Your task to perform on an android device: manage bookmarks in the chrome app Image 0: 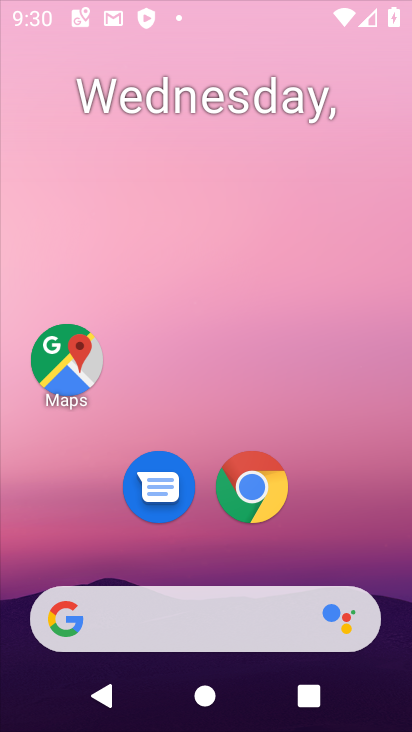
Step 0: drag from (79, 535) to (200, 12)
Your task to perform on an android device: manage bookmarks in the chrome app Image 1: 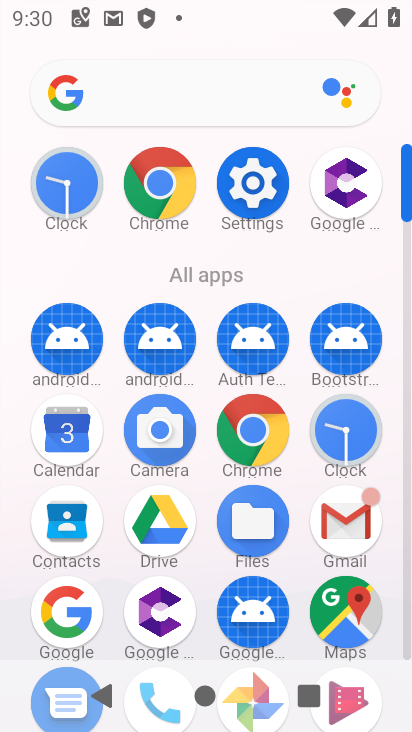
Step 1: click (163, 171)
Your task to perform on an android device: manage bookmarks in the chrome app Image 2: 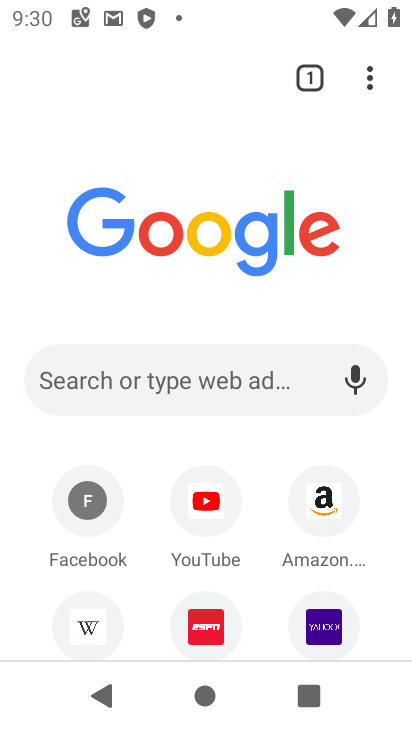
Step 2: drag from (377, 66) to (126, 298)
Your task to perform on an android device: manage bookmarks in the chrome app Image 3: 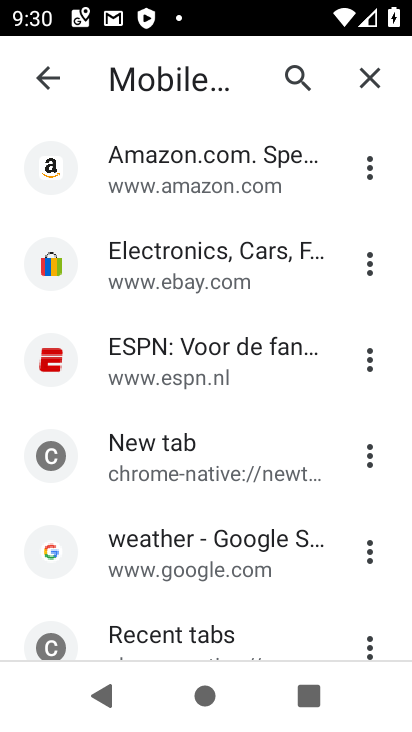
Step 3: click (368, 261)
Your task to perform on an android device: manage bookmarks in the chrome app Image 4: 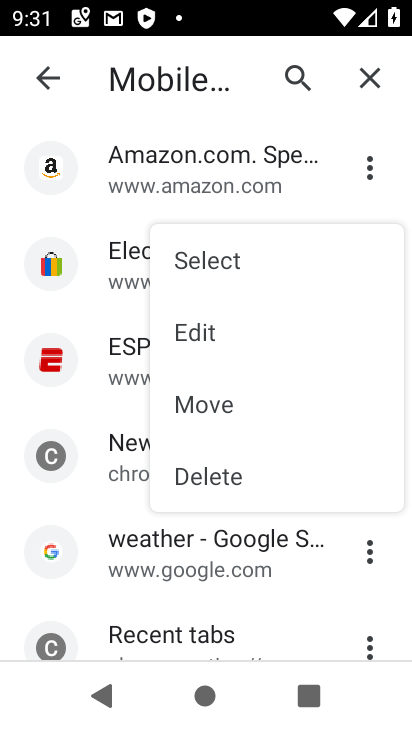
Step 4: click (222, 486)
Your task to perform on an android device: manage bookmarks in the chrome app Image 5: 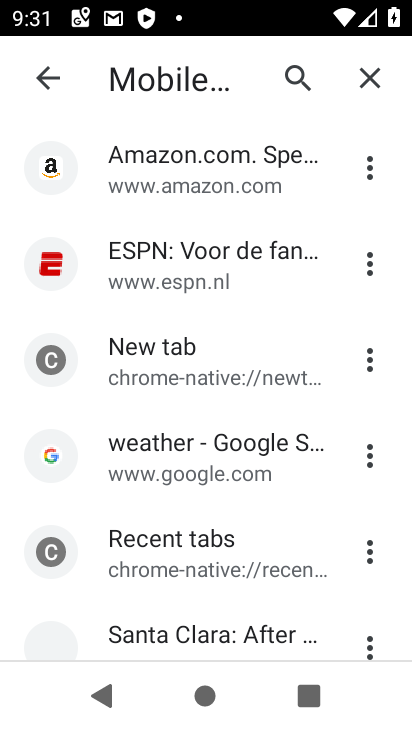
Step 5: task complete